Your task to perform on an android device: Go to internet settings Image 0: 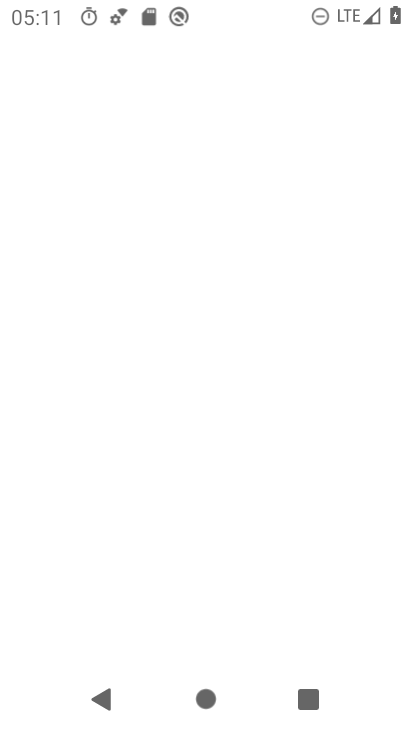
Step 0: press back button
Your task to perform on an android device: Go to internet settings Image 1: 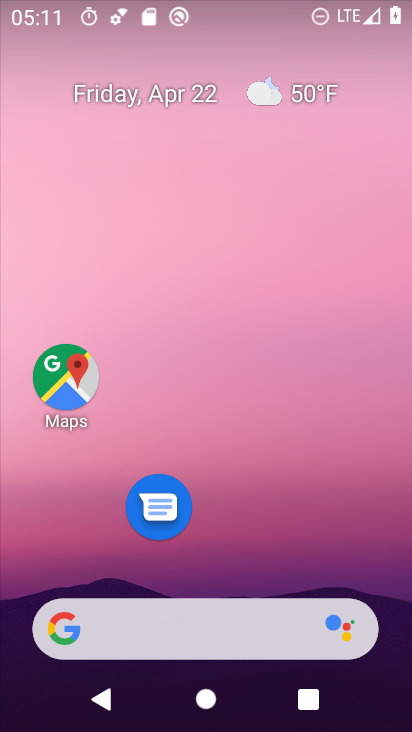
Step 1: drag from (223, 515) to (250, 121)
Your task to perform on an android device: Go to internet settings Image 2: 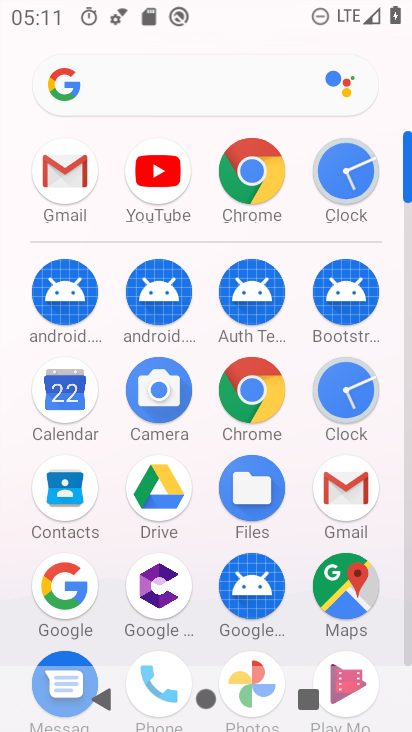
Step 2: drag from (159, 539) to (257, 87)
Your task to perform on an android device: Go to internet settings Image 3: 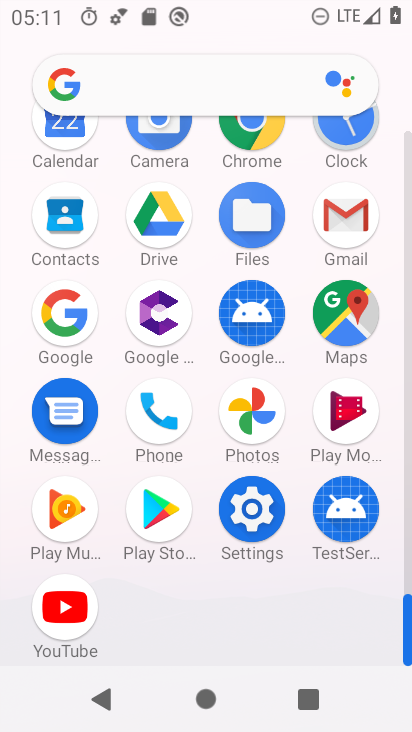
Step 3: click (247, 505)
Your task to perform on an android device: Go to internet settings Image 4: 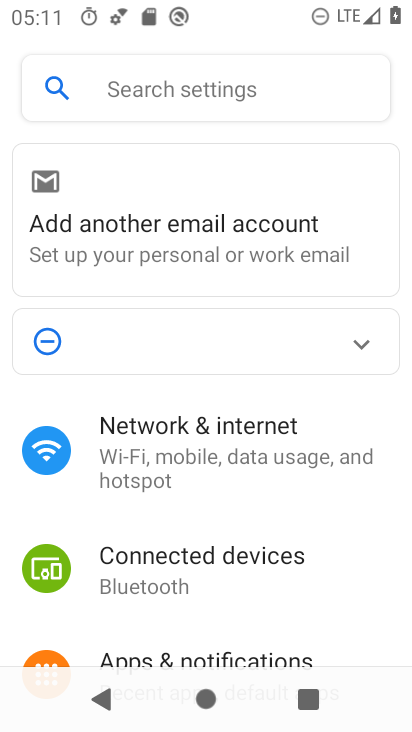
Step 4: click (230, 462)
Your task to perform on an android device: Go to internet settings Image 5: 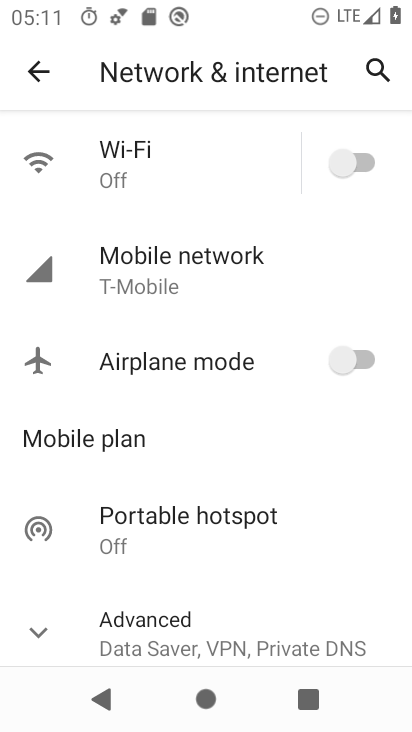
Step 5: task complete